Your task to perform on an android device: Go to settings Image 0: 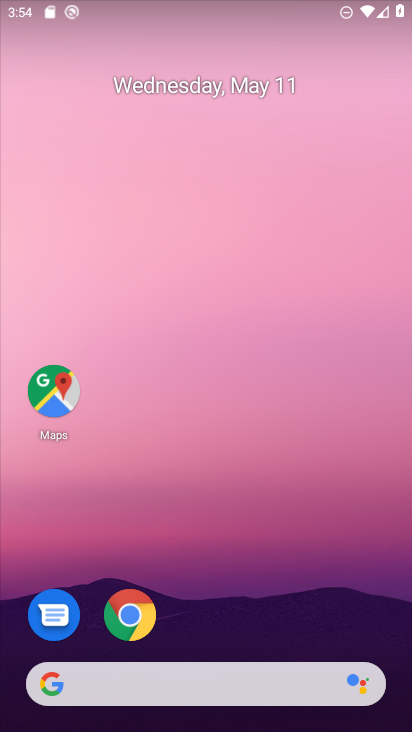
Step 0: drag from (236, 645) to (219, 157)
Your task to perform on an android device: Go to settings Image 1: 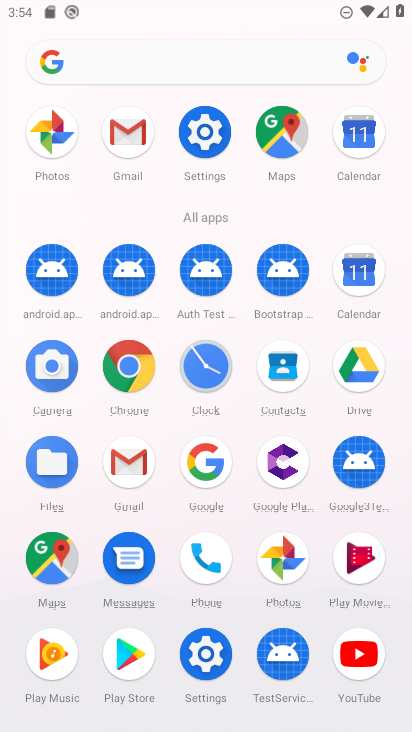
Step 1: click (214, 151)
Your task to perform on an android device: Go to settings Image 2: 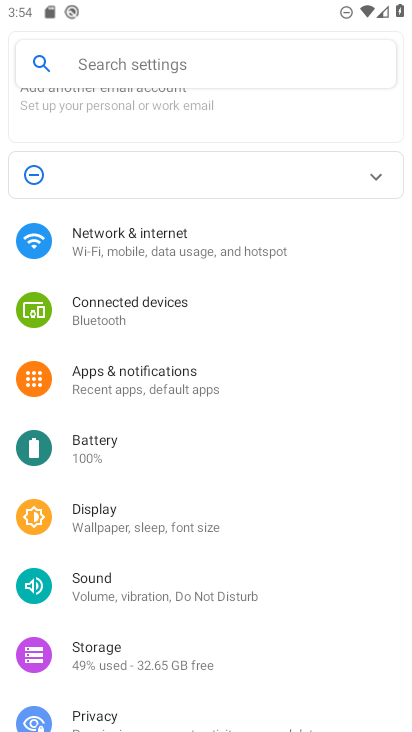
Step 2: task complete